Your task to perform on an android device: find which apps use the phone's location Image 0: 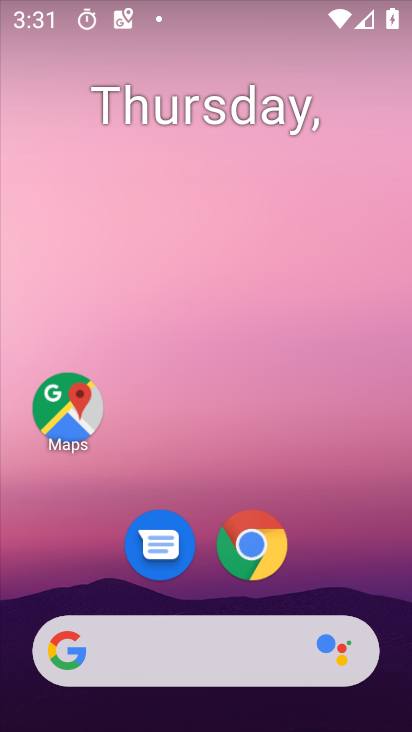
Step 0: click (226, 3)
Your task to perform on an android device: find which apps use the phone's location Image 1: 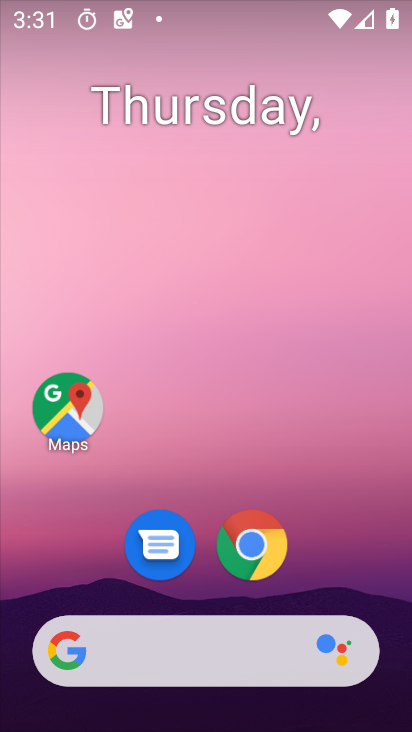
Step 1: drag from (217, 725) to (222, 83)
Your task to perform on an android device: find which apps use the phone's location Image 2: 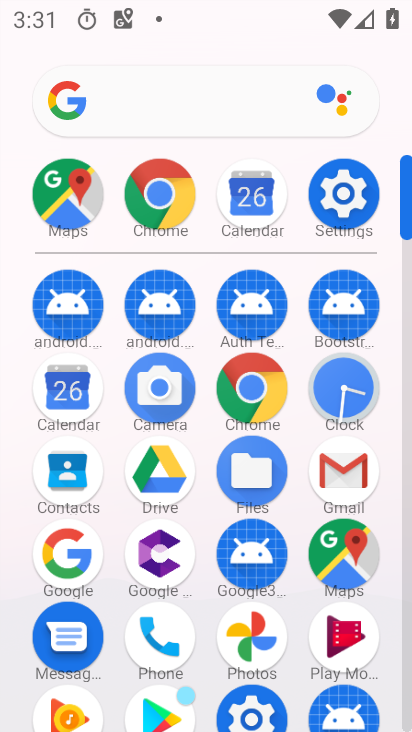
Step 2: click (333, 194)
Your task to perform on an android device: find which apps use the phone's location Image 3: 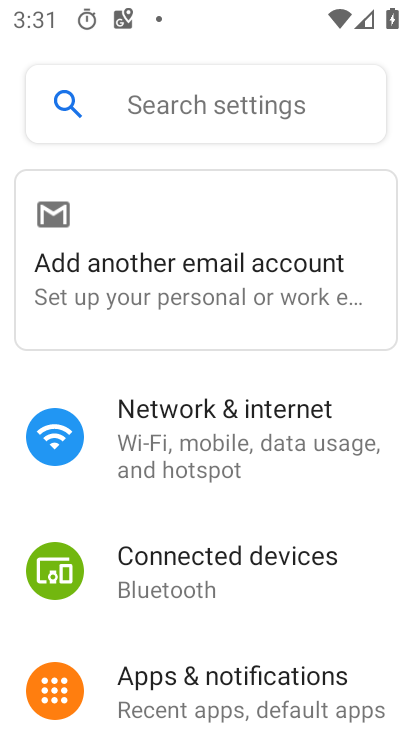
Step 3: drag from (214, 700) to (218, 480)
Your task to perform on an android device: find which apps use the phone's location Image 4: 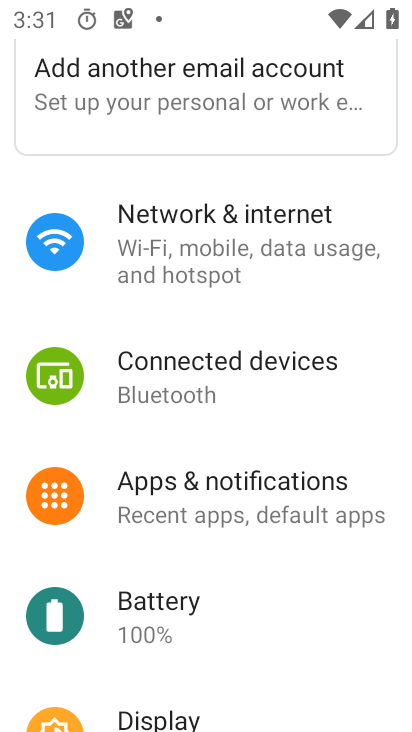
Step 4: drag from (177, 708) to (186, 478)
Your task to perform on an android device: find which apps use the phone's location Image 5: 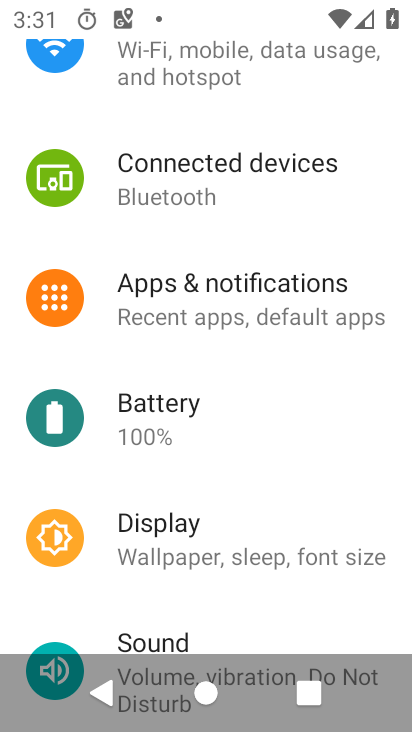
Step 5: drag from (202, 633) to (202, 292)
Your task to perform on an android device: find which apps use the phone's location Image 6: 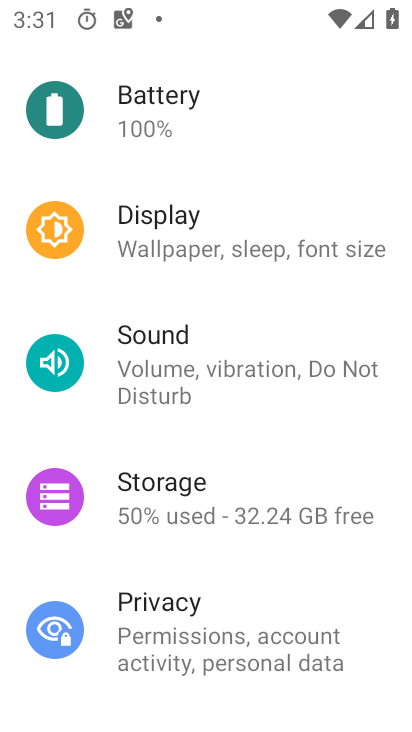
Step 6: drag from (196, 676) to (195, 355)
Your task to perform on an android device: find which apps use the phone's location Image 7: 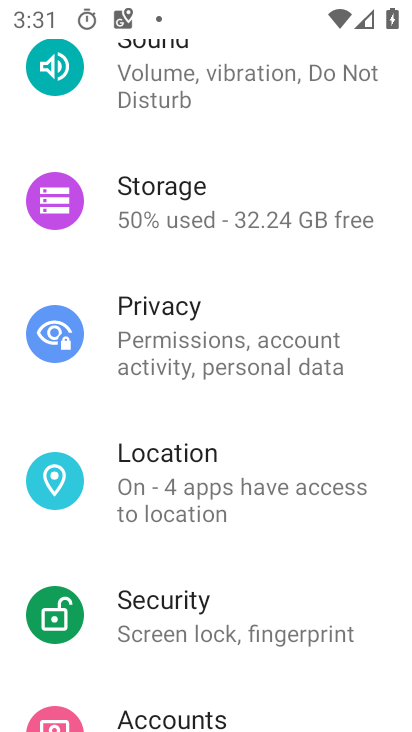
Step 7: click (170, 475)
Your task to perform on an android device: find which apps use the phone's location Image 8: 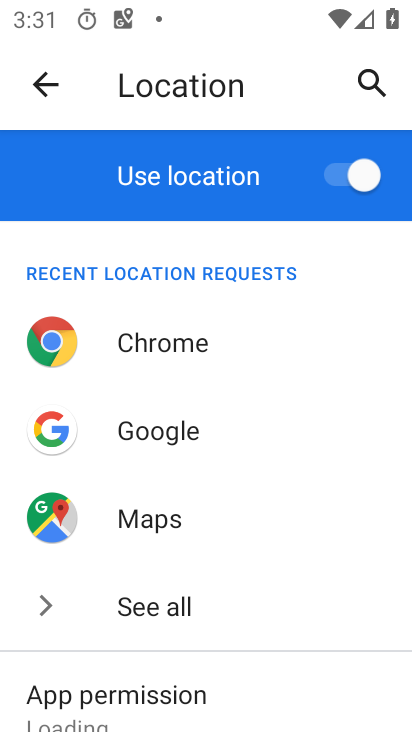
Step 8: drag from (191, 699) to (194, 341)
Your task to perform on an android device: find which apps use the phone's location Image 9: 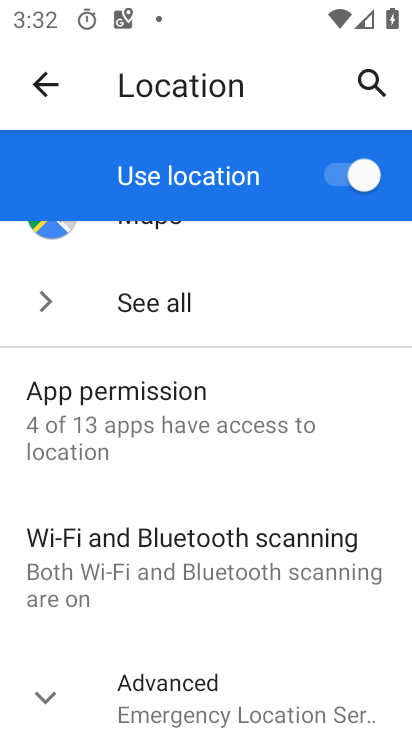
Step 9: drag from (186, 623) to (179, 498)
Your task to perform on an android device: find which apps use the phone's location Image 10: 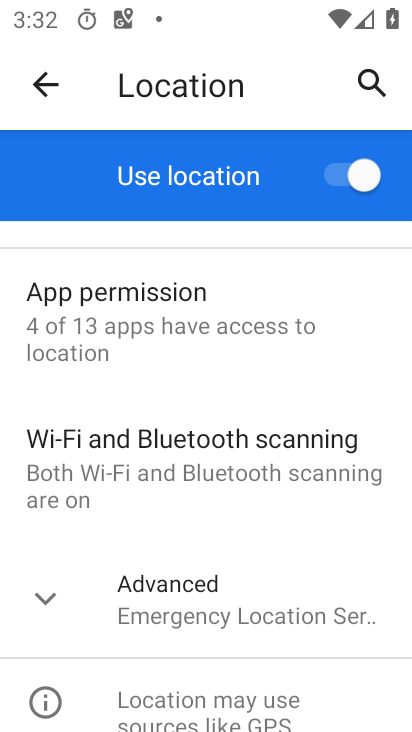
Step 10: click (66, 310)
Your task to perform on an android device: find which apps use the phone's location Image 11: 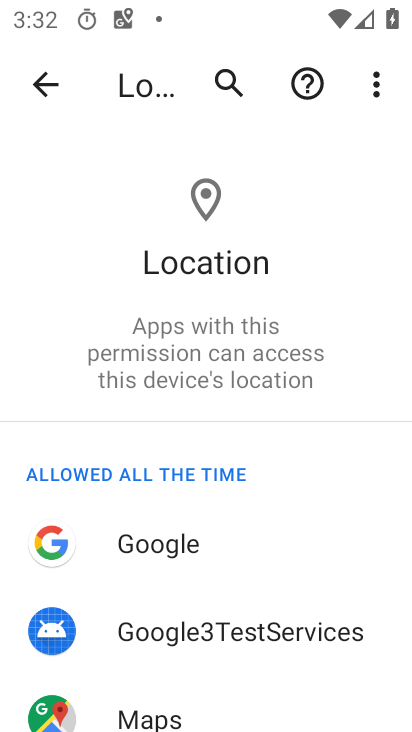
Step 11: task complete